Your task to perform on an android device: Go to Android settings Image 0: 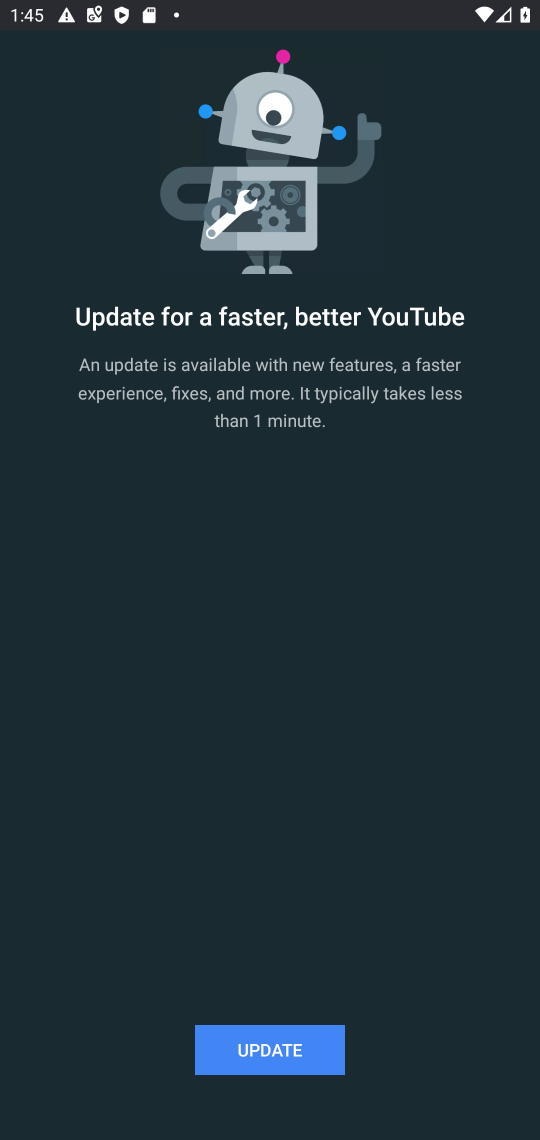
Step 0: press home button
Your task to perform on an android device: Go to Android settings Image 1: 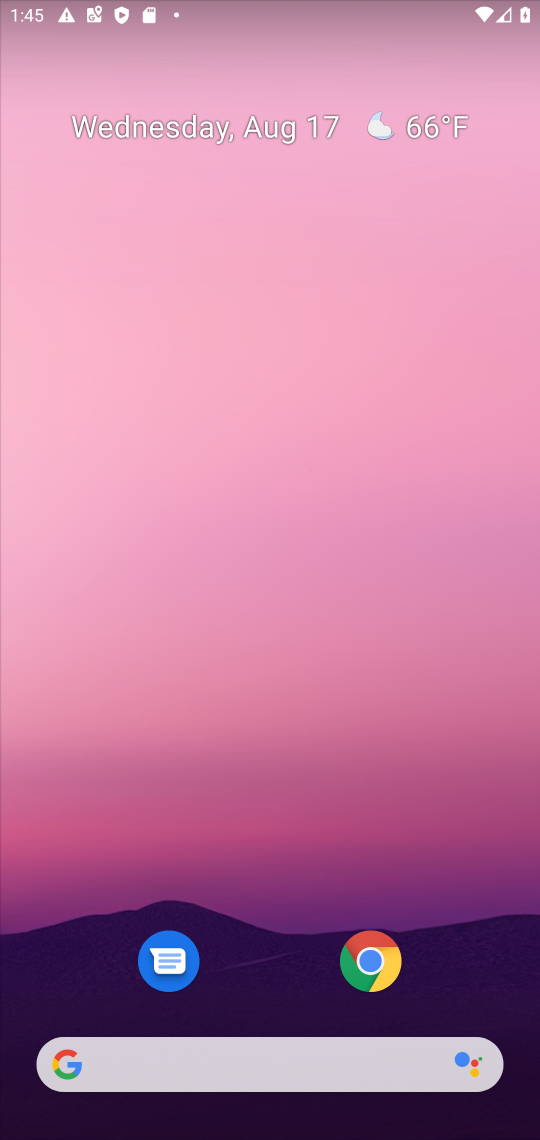
Step 1: drag from (295, 1045) to (336, 98)
Your task to perform on an android device: Go to Android settings Image 2: 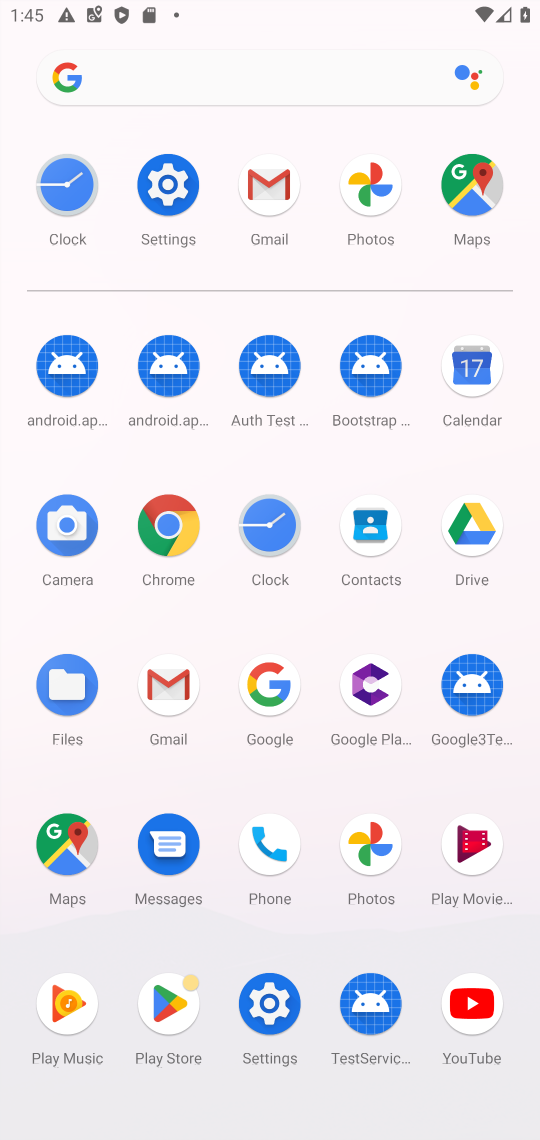
Step 2: click (165, 213)
Your task to perform on an android device: Go to Android settings Image 3: 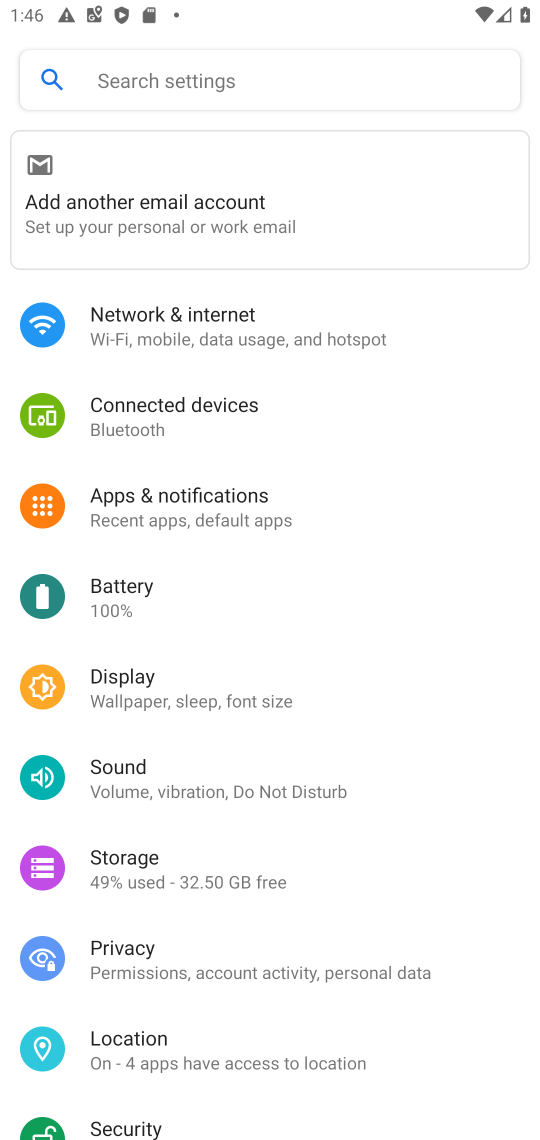
Step 3: drag from (253, 670) to (356, 33)
Your task to perform on an android device: Go to Android settings Image 4: 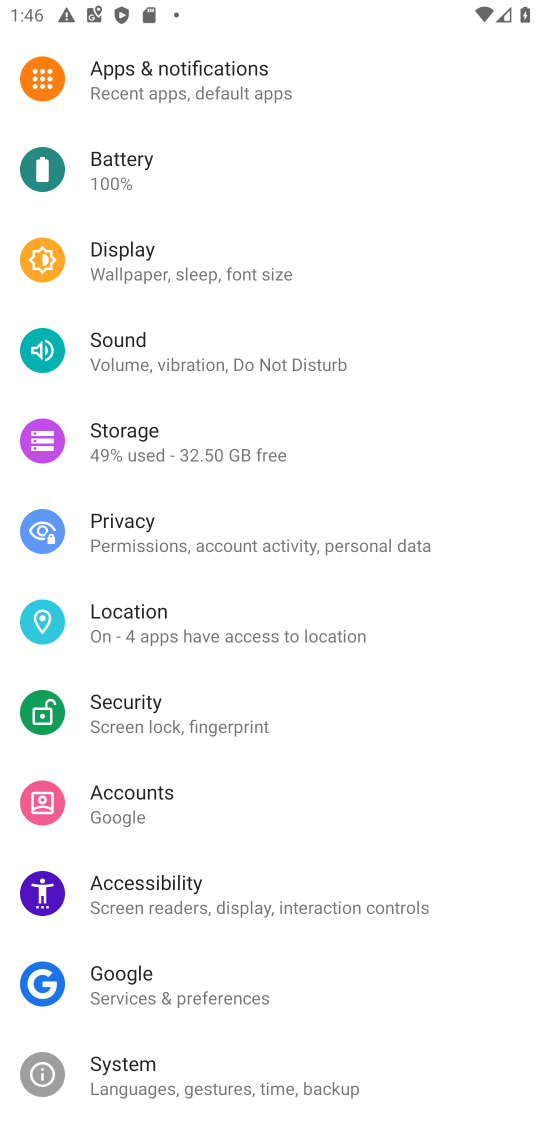
Step 4: drag from (254, 927) to (291, 326)
Your task to perform on an android device: Go to Android settings Image 5: 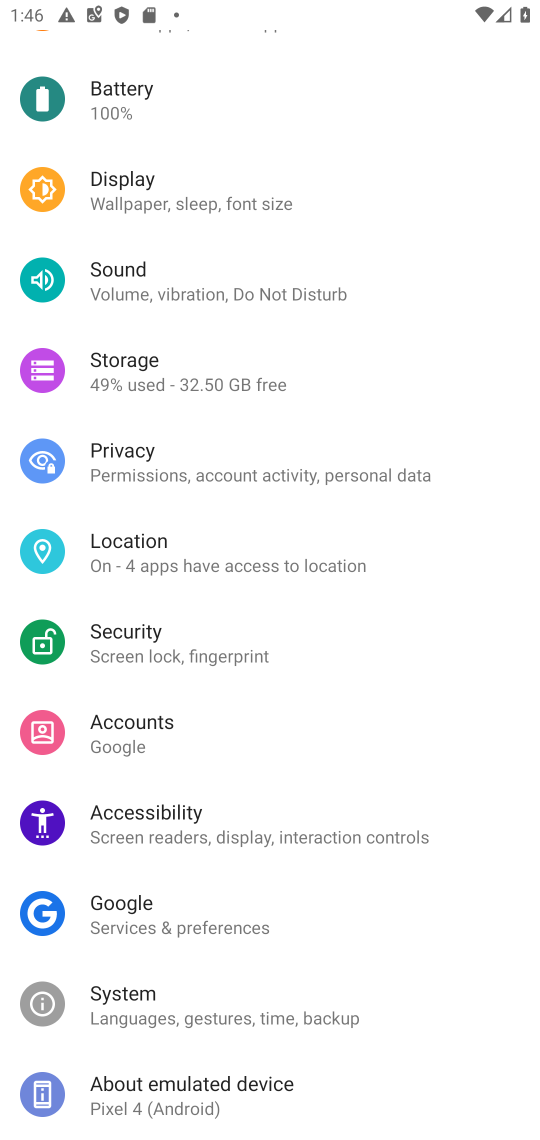
Step 5: drag from (257, 844) to (269, 362)
Your task to perform on an android device: Go to Android settings Image 6: 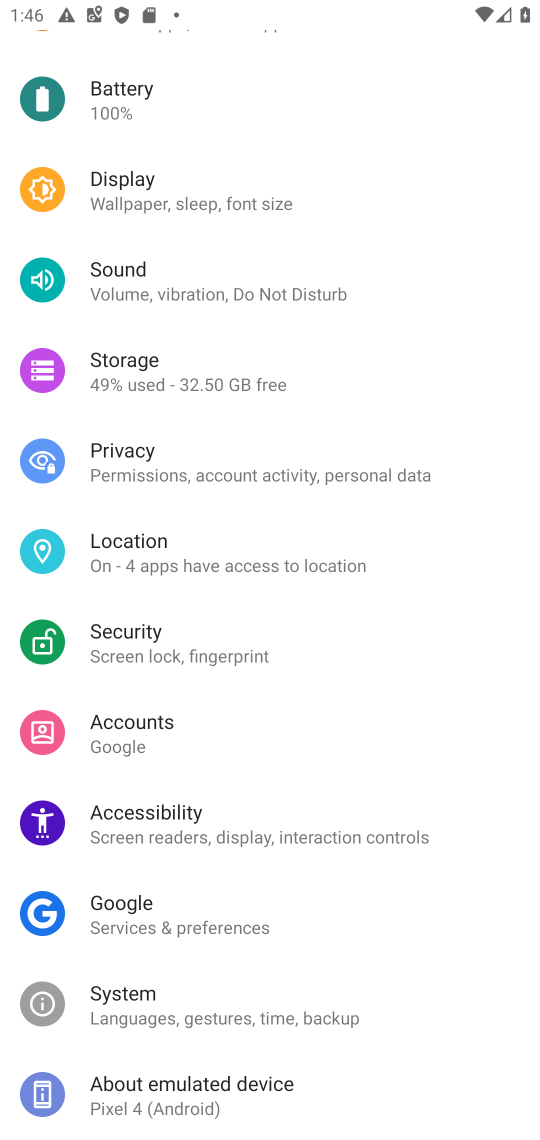
Step 6: click (241, 1082)
Your task to perform on an android device: Go to Android settings Image 7: 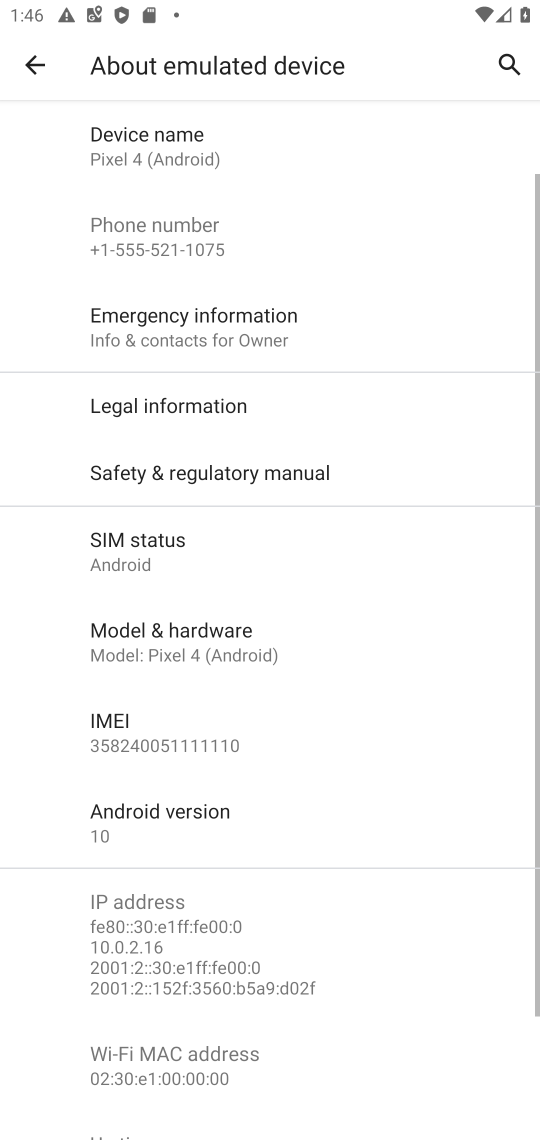
Step 7: click (182, 817)
Your task to perform on an android device: Go to Android settings Image 8: 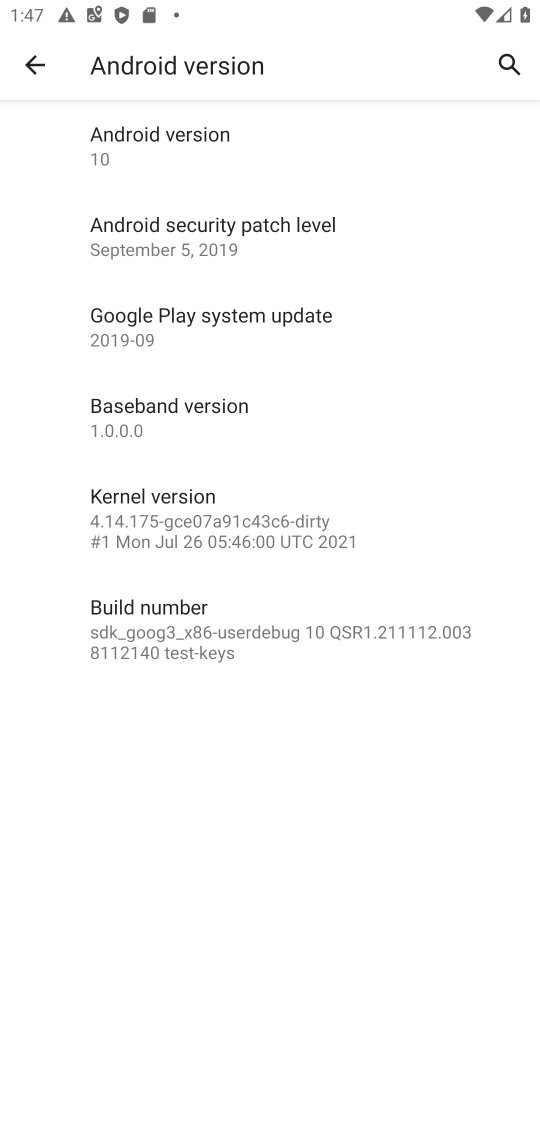
Step 8: click (215, 157)
Your task to perform on an android device: Go to Android settings Image 9: 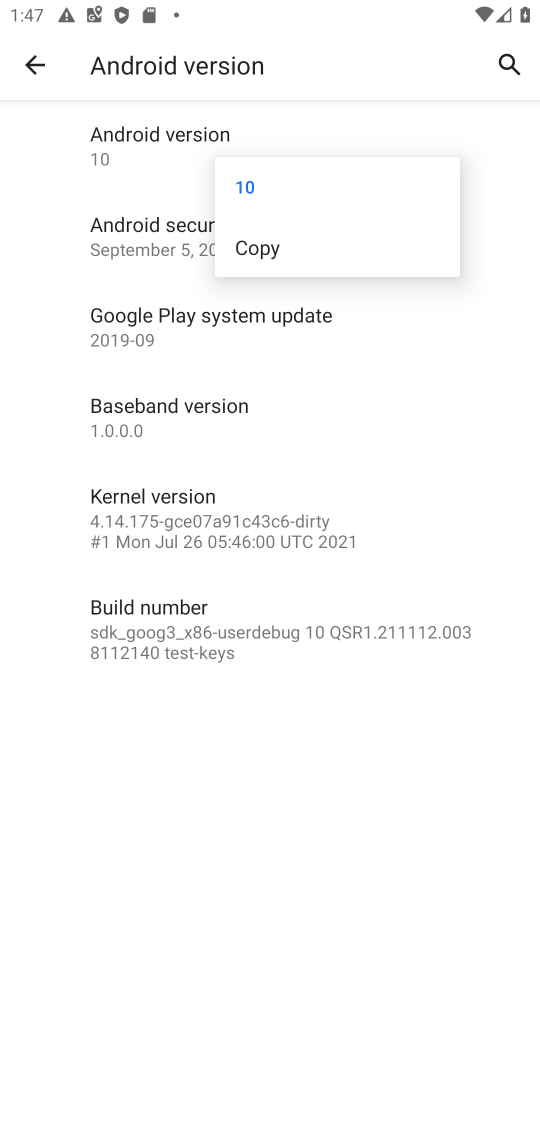
Step 9: task complete